Your task to perform on an android device: open chrome privacy settings Image 0: 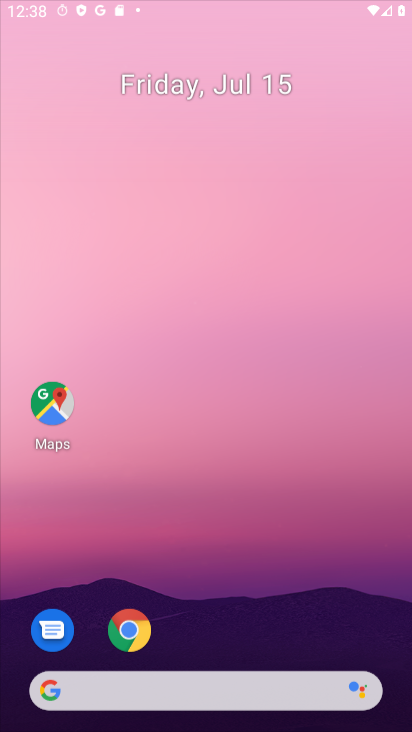
Step 0: drag from (222, 343) to (372, 728)
Your task to perform on an android device: open chrome privacy settings Image 1: 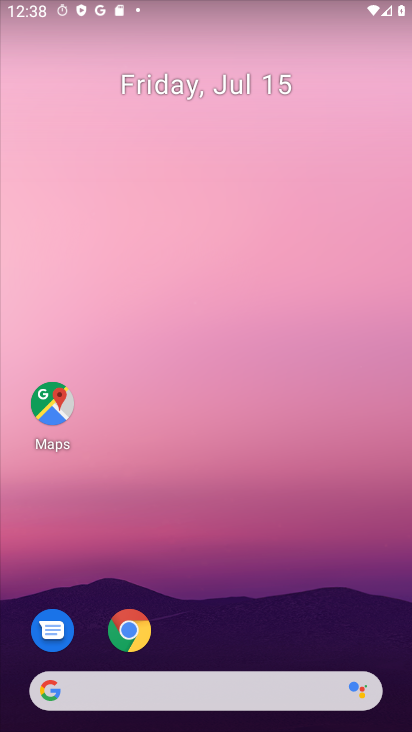
Step 1: click (289, 355)
Your task to perform on an android device: open chrome privacy settings Image 2: 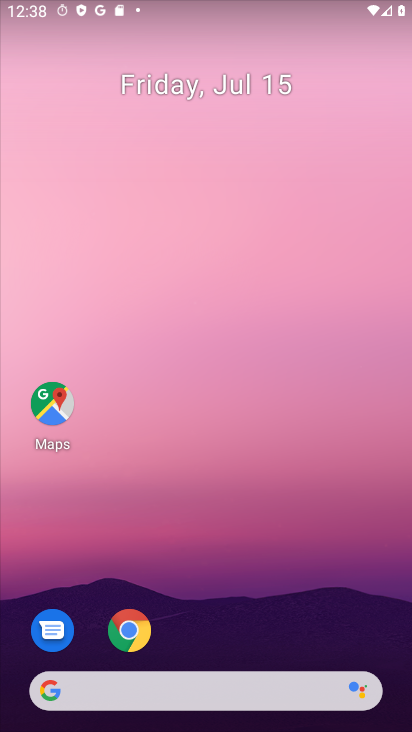
Step 2: drag from (182, 646) to (244, 103)
Your task to perform on an android device: open chrome privacy settings Image 3: 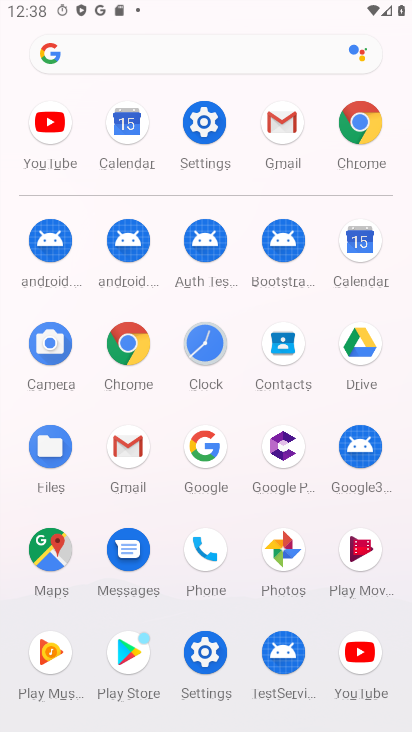
Step 3: click (207, 125)
Your task to perform on an android device: open chrome privacy settings Image 4: 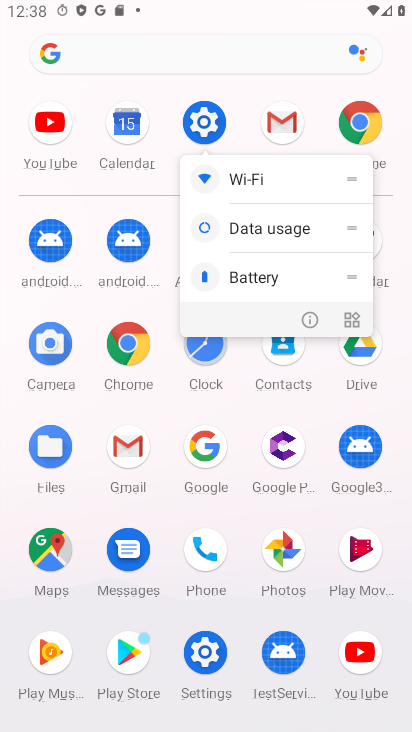
Step 4: click (358, 120)
Your task to perform on an android device: open chrome privacy settings Image 5: 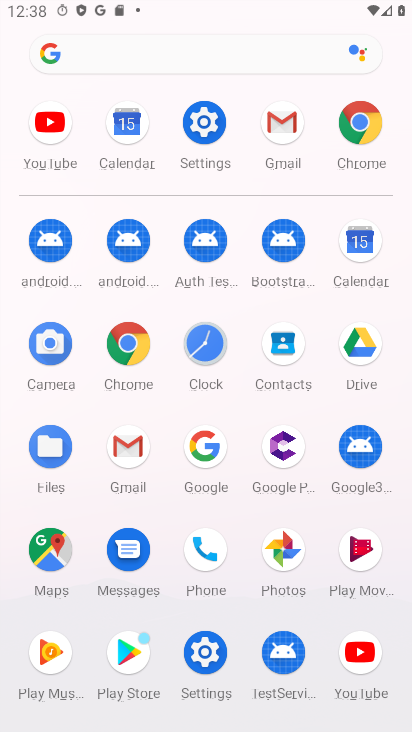
Step 5: click (358, 120)
Your task to perform on an android device: open chrome privacy settings Image 6: 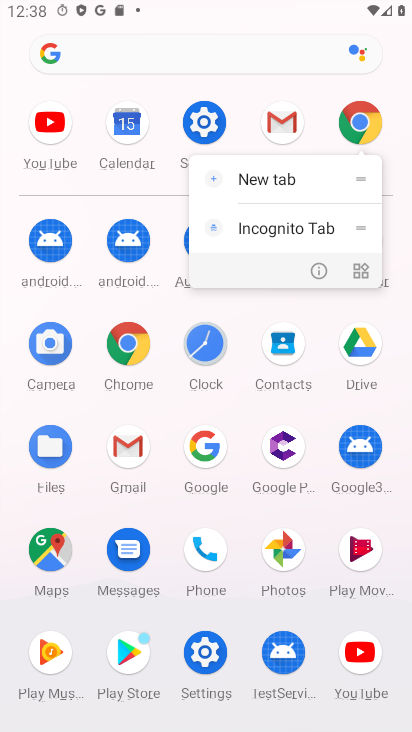
Step 6: click (315, 258)
Your task to perform on an android device: open chrome privacy settings Image 7: 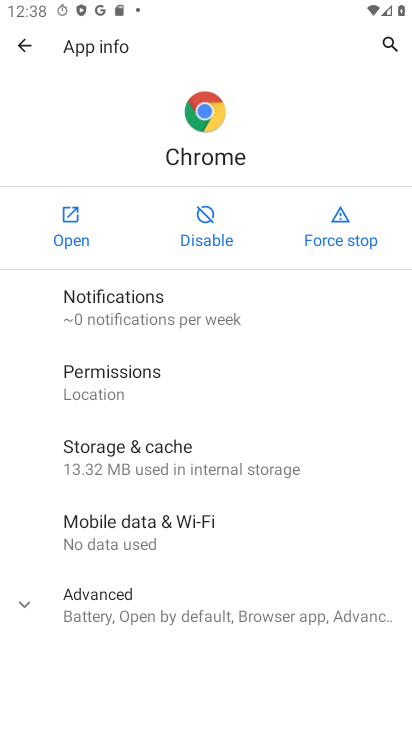
Step 7: click (57, 219)
Your task to perform on an android device: open chrome privacy settings Image 8: 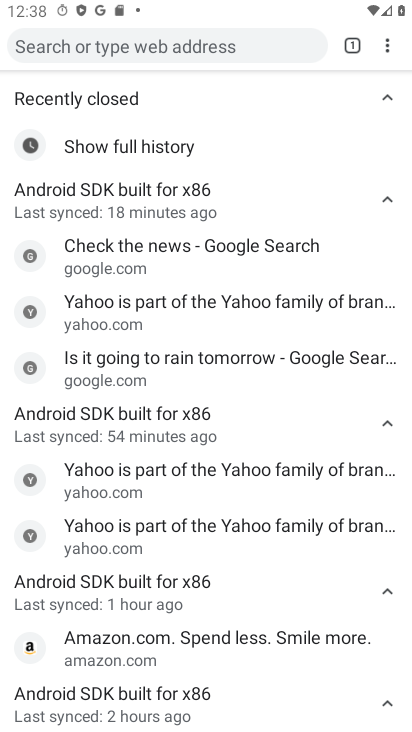
Step 8: drag from (385, 38) to (284, 384)
Your task to perform on an android device: open chrome privacy settings Image 9: 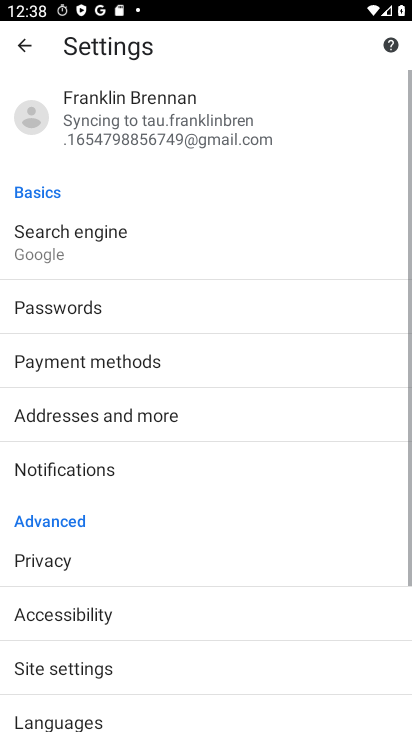
Step 9: drag from (187, 591) to (254, 106)
Your task to perform on an android device: open chrome privacy settings Image 10: 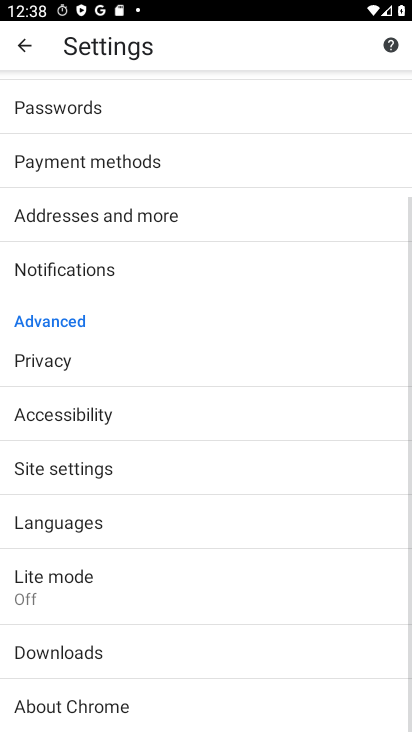
Step 10: drag from (98, 694) to (247, 54)
Your task to perform on an android device: open chrome privacy settings Image 11: 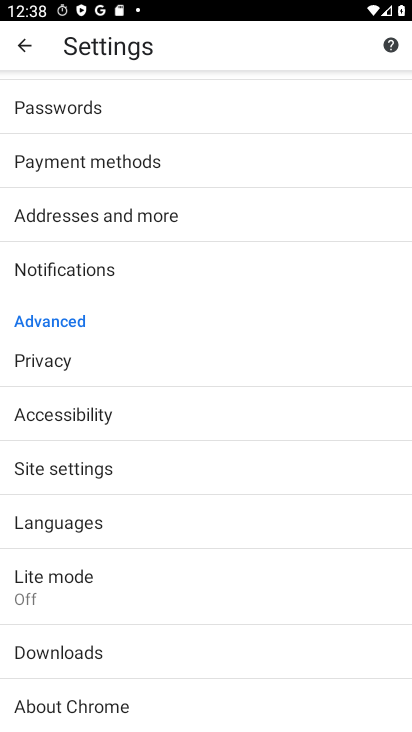
Step 11: click (71, 368)
Your task to perform on an android device: open chrome privacy settings Image 12: 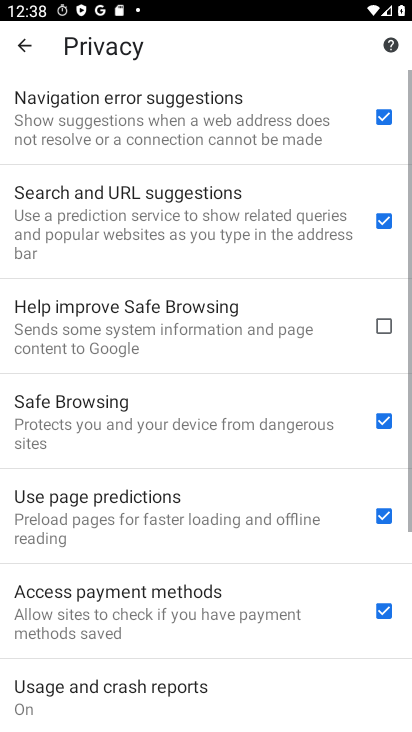
Step 12: task complete